Your task to perform on an android device: allow cookies in the chrome app Image 0: 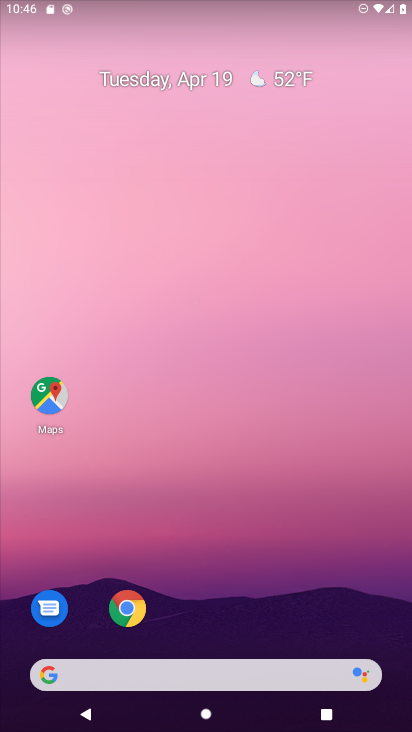
Step 0: drag from (342, 570) to (264, 137)
Your task to perform on an android device: allow cookies in the chrome app Image 1: 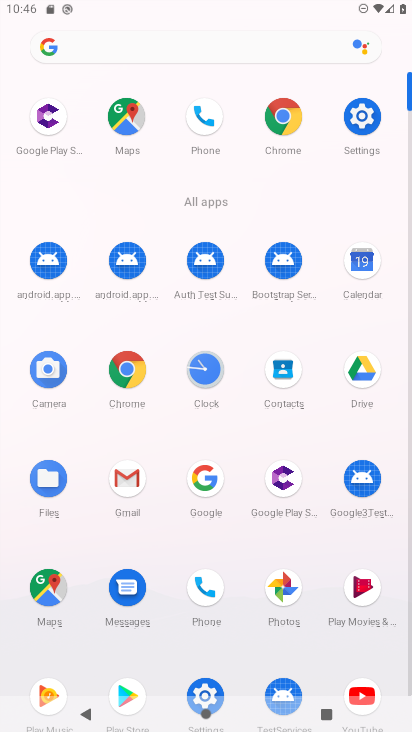
Step 1: click (270, 130)
Your task to perform on an android device: allow cookies in the chrome app Image 2: 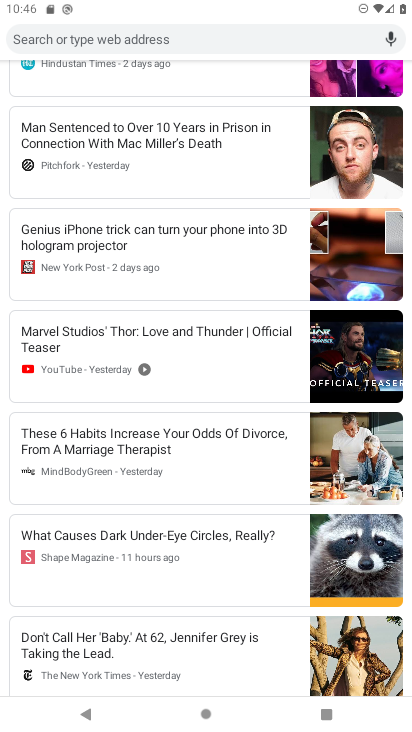
Step 2: drag from (270, 130) to (411, 589)
Your task to perform on an android device: allow cookies in the chrome app Image 3: 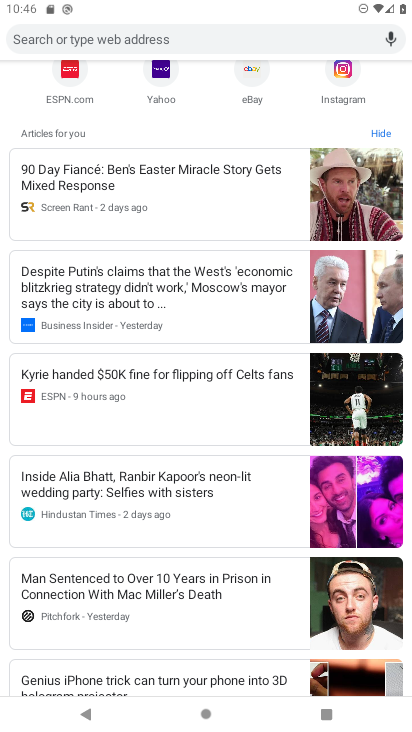
Step 3: drag from (284, 184) to (411, 591)
Your task to perform on an android device: allow cookies in the chrome app Image 4: 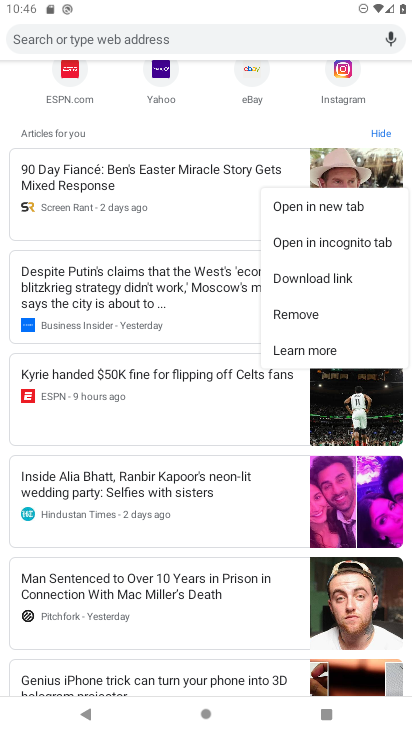
Step 4: drag from (162, 179) to (244, 571)
Your task to perform on an android device: allow cookies in the chrome app Image 5: 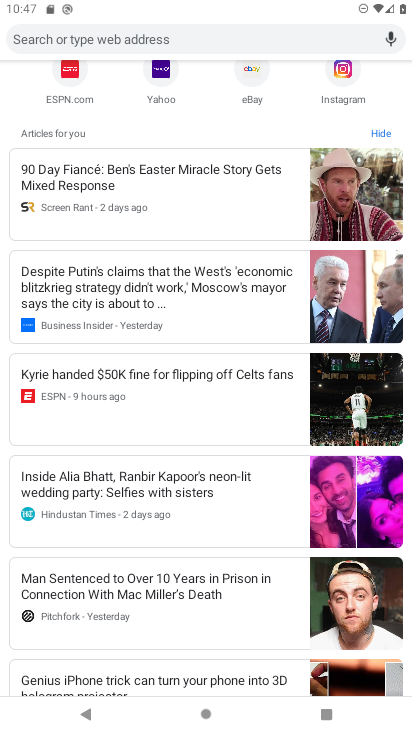
Step 5: drag from (82, 223) to (123, 647)
Your task to perform on an android device: allow cookies in the chrome app Image 6: 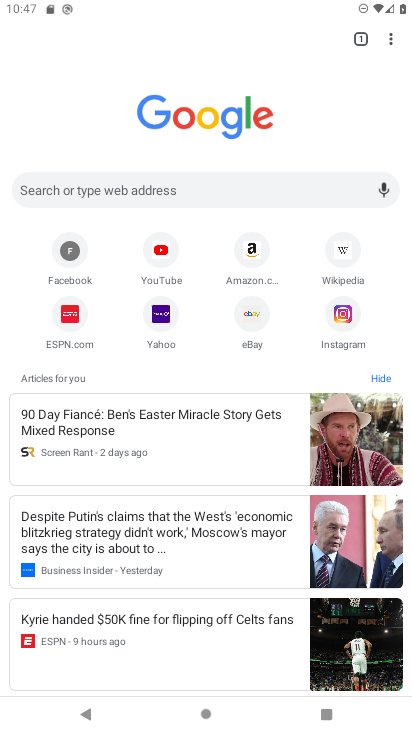
Step 6: drag from (233, 173) to (133, 565)
Your task to perform on an android device: allow cookies in the chrome app Image 7: 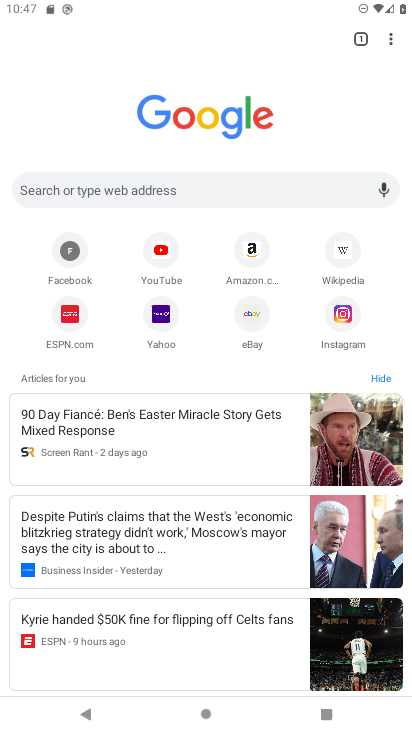
Step 7: click (390, 48)
Your task to perform on an android device: allow cookies in the chrome app Image 8: 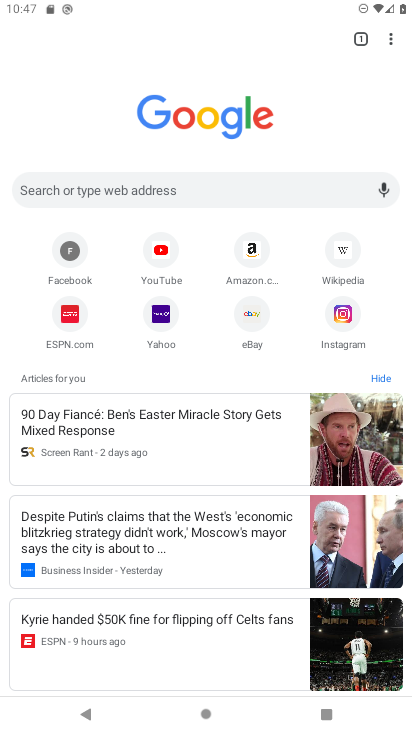
Step 8: drag from (388, 51) to (267, 335)
Your task to perform on an android device: allow cookies in the chrome app Image 9: 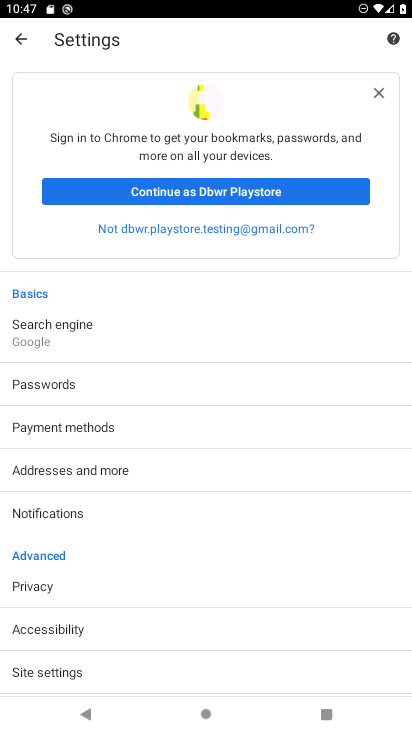
Step 9: drag from (159, 609) to (135, 231)
Your task to perform on an android device: allow cookies in the chrome app Image 10: 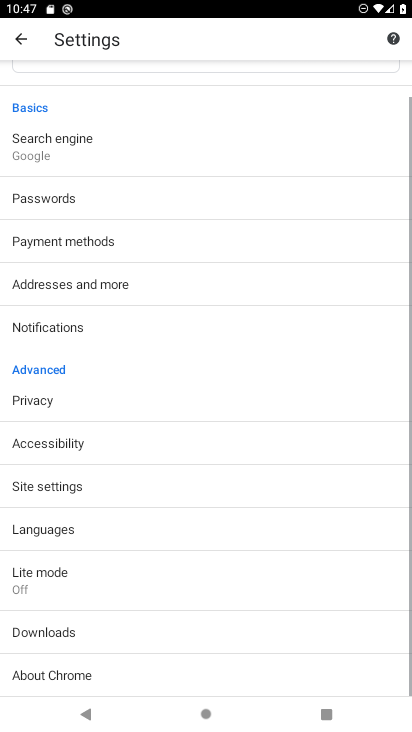
Step 10: click (27, 479)
Your task to perform on an android device: allow cookies in the chrome app Image 11: 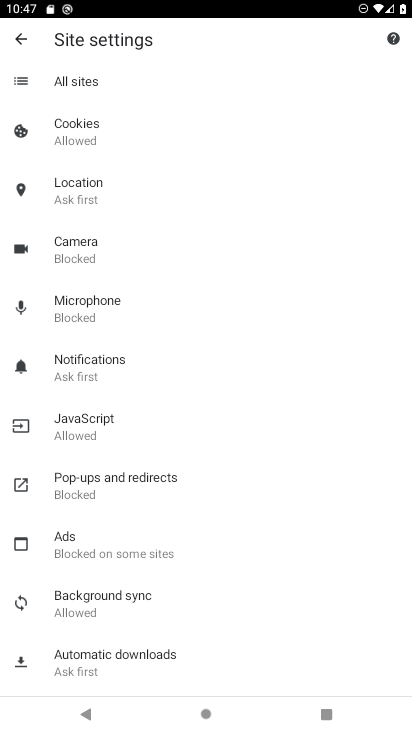
Step 11: click (70, 131)
Your task to perform on an android device: allow cookies in the chrome app Image 12: 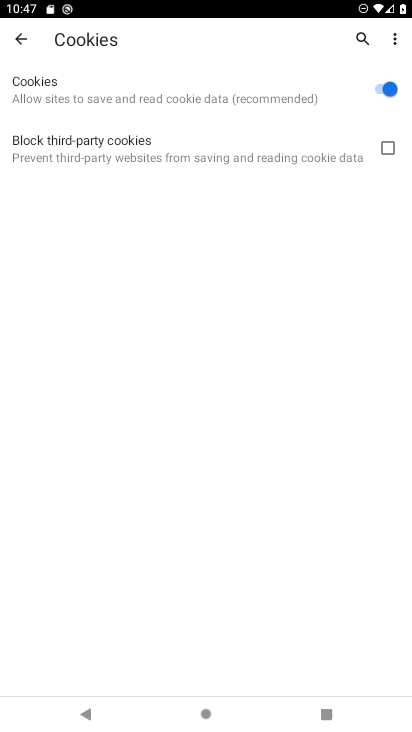
Step 12: task complete